Your task to perform on an android device: Add rayovac triple a to the cart on bestbuy, then select checkout. Image 0: 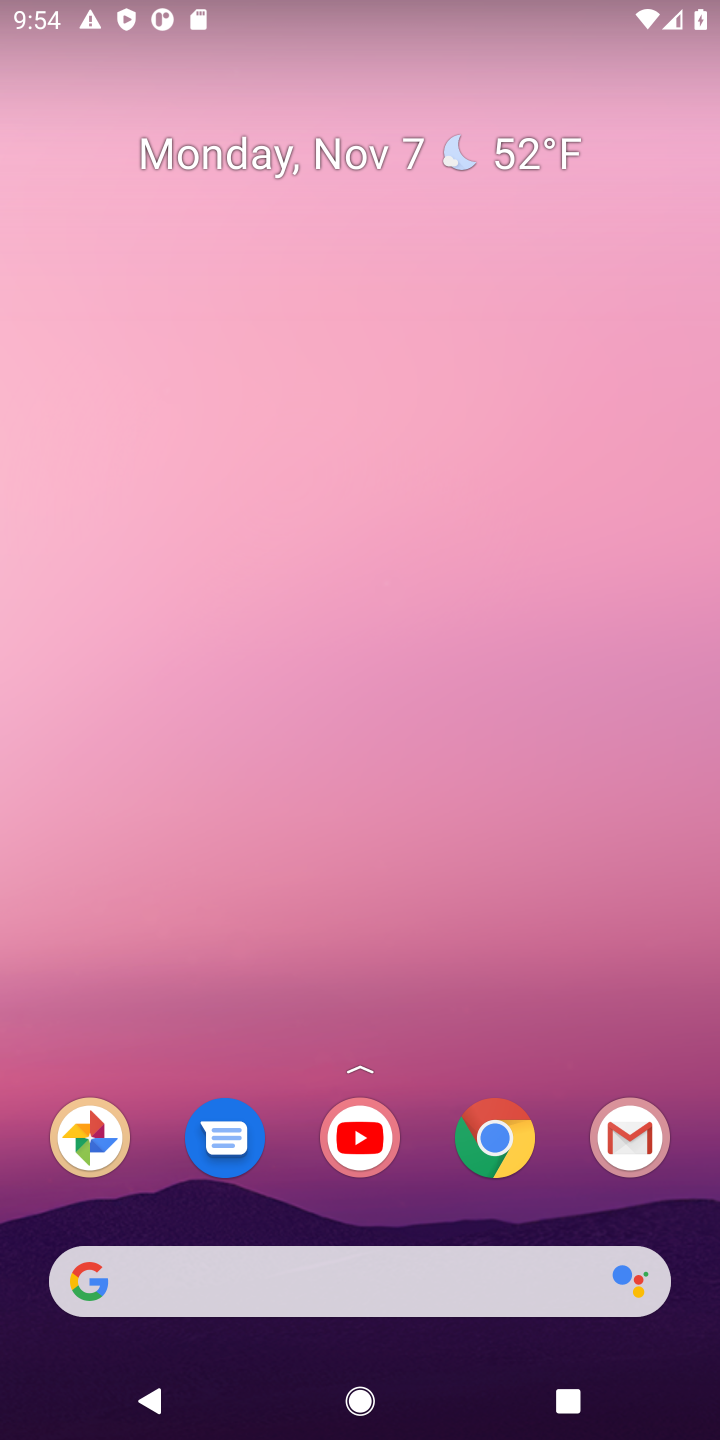
Step 0: drag from (447, 1201) to (459, 154)
Your task to perform on an android device: Add rayovac triple a to the cart on bestbuy, then select checkout. Image 1: 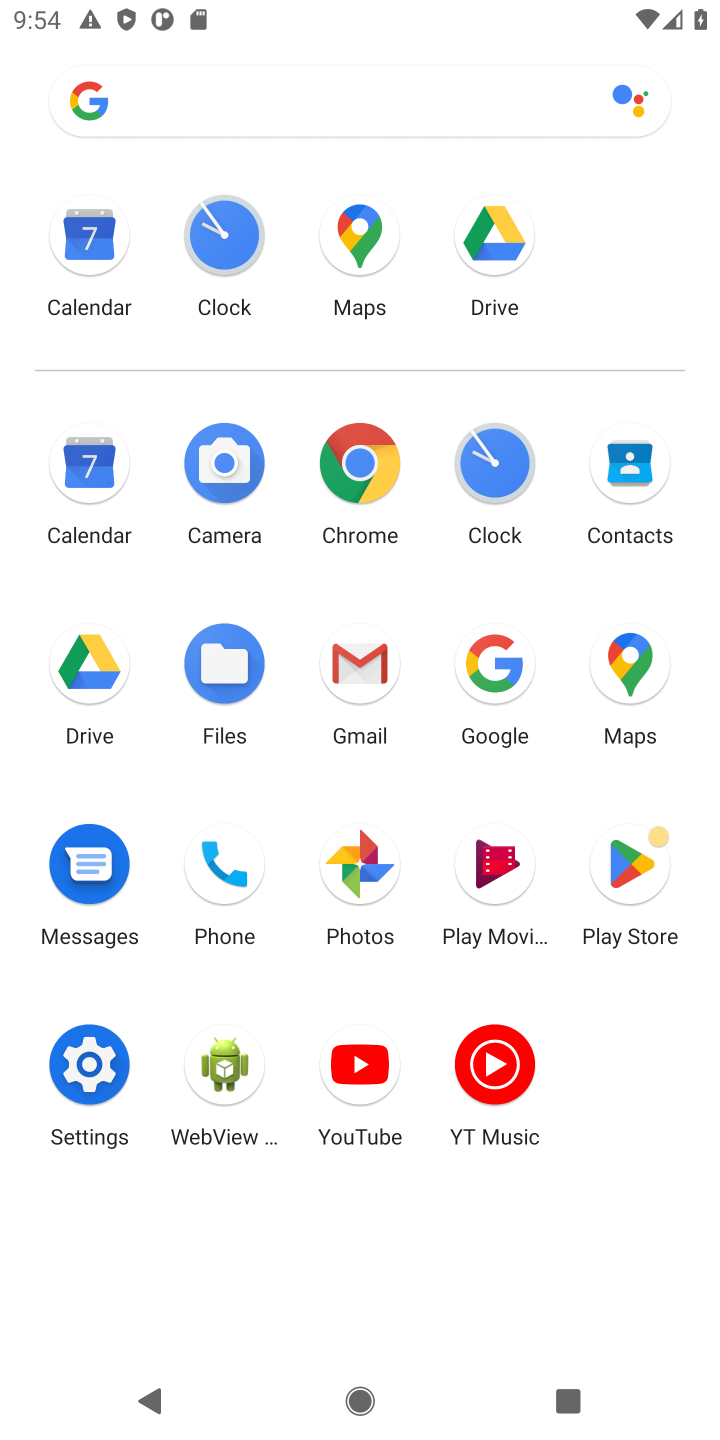
Step 1: click (363, 458)
Your task to perform on an android device: Add rayovac triple a to the cart on bestbuy, then select checkout. Image 2: 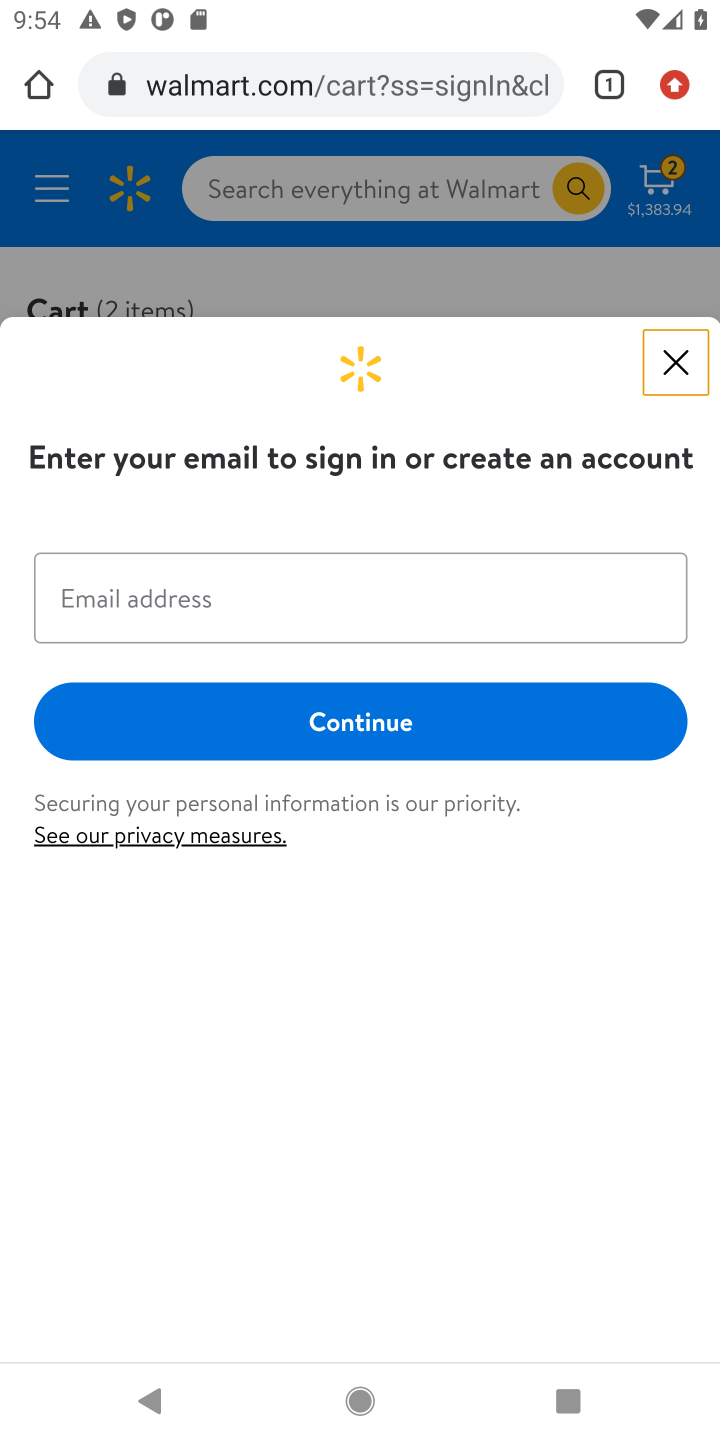
Step 2: click (447, 90)
Your task to perform on an android device: Add rayovac triple a to the cart on bestbuy, then select checkout. Image 3: 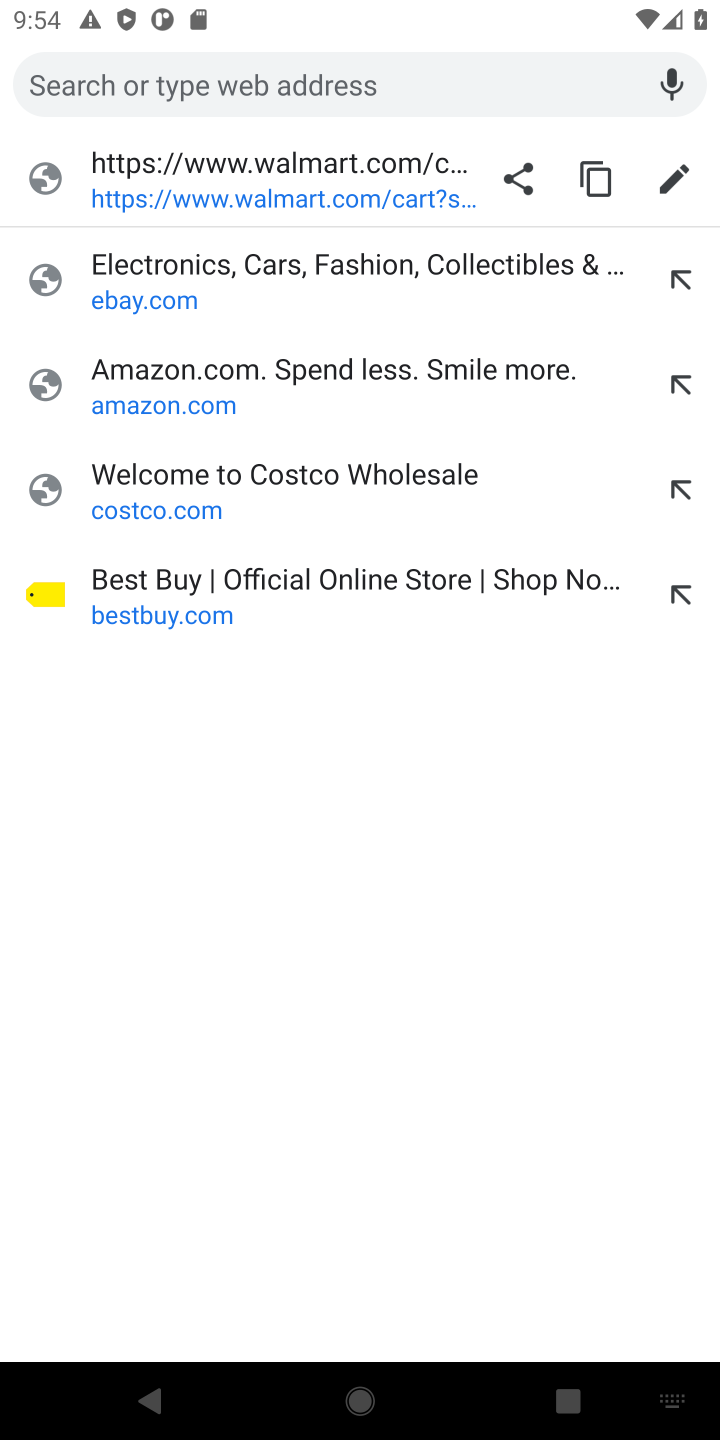
Step 3: type "bestbuy.com"
Your task to perform on an android device: Add rayovac triple a to the cart on bestbuy, then select checkout. Image 4: 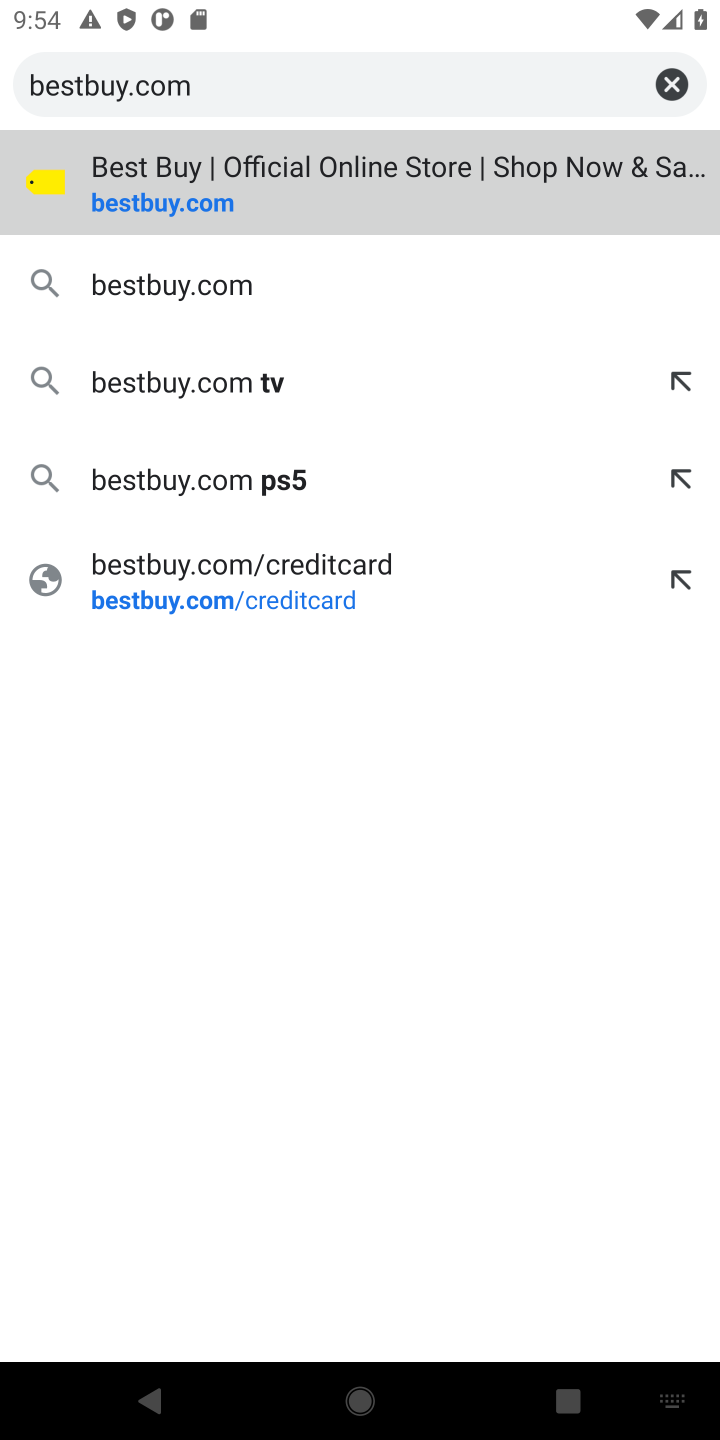
Step 4: press enter
Your task to perform on an android device: Add rayovac triple a to the cart on bestbuy, then select checkout. Image 5: 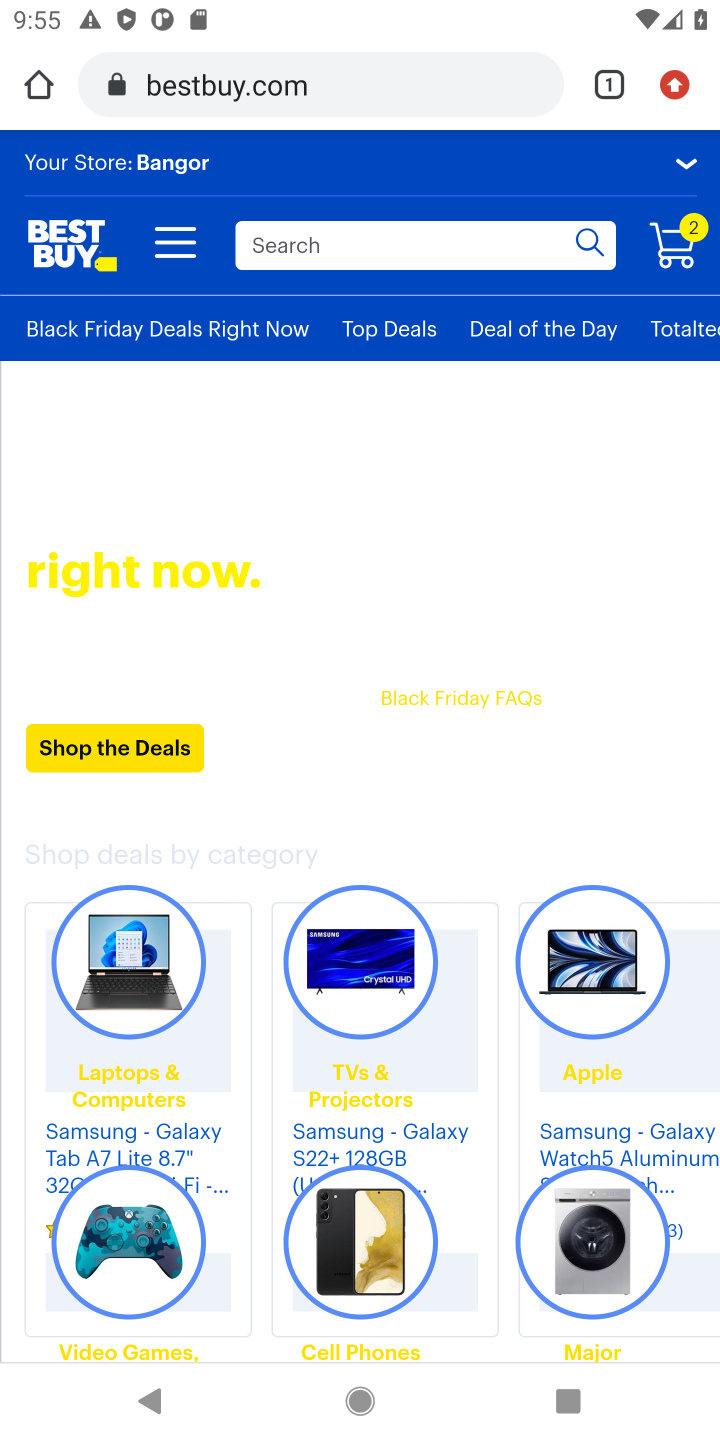
Step 5: click (488, 251)
Your task to perform on an android device: Add rayovac triple a to the cart on bestbuy, then select checkout. Image 6: 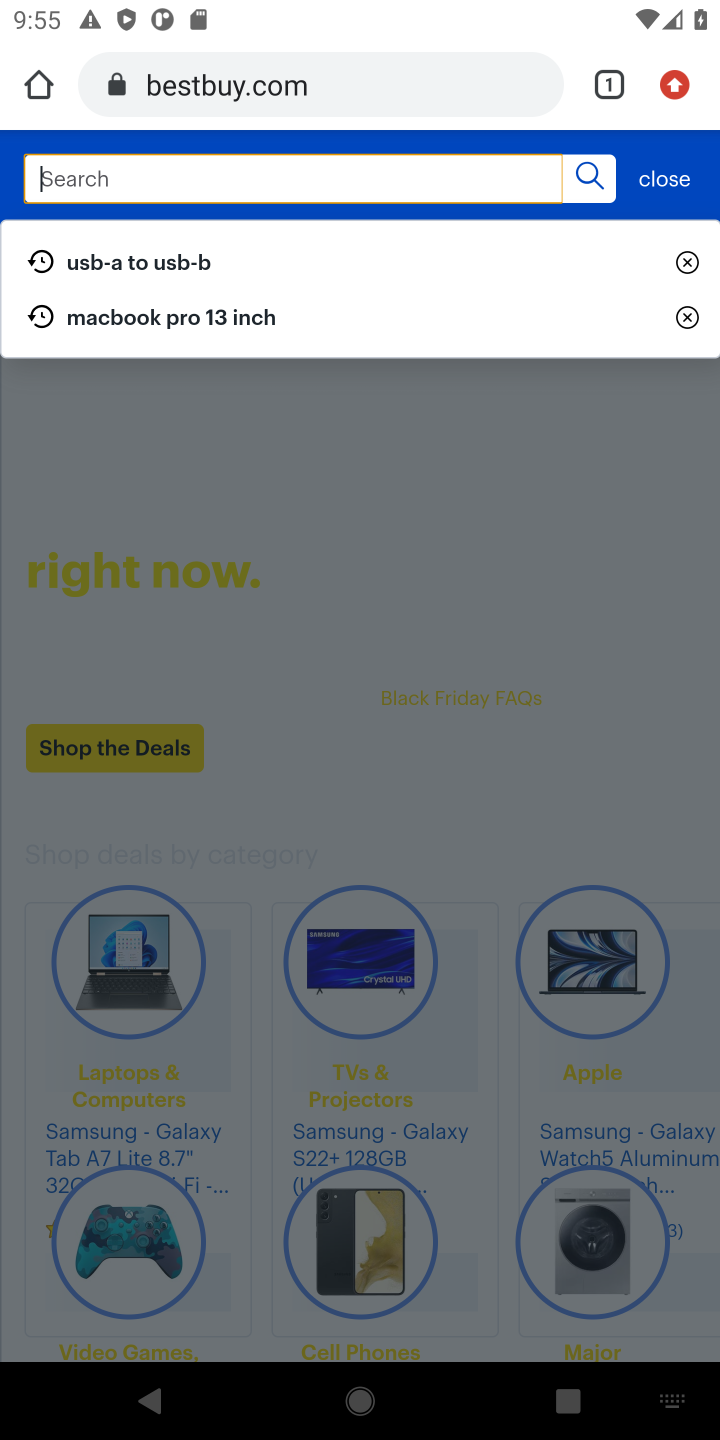
Step 6: type "rayovac triple a"
Your task to perform on an android device: Add rayovac triple a to the cart on bestbuy, then select checkout. Image 7: 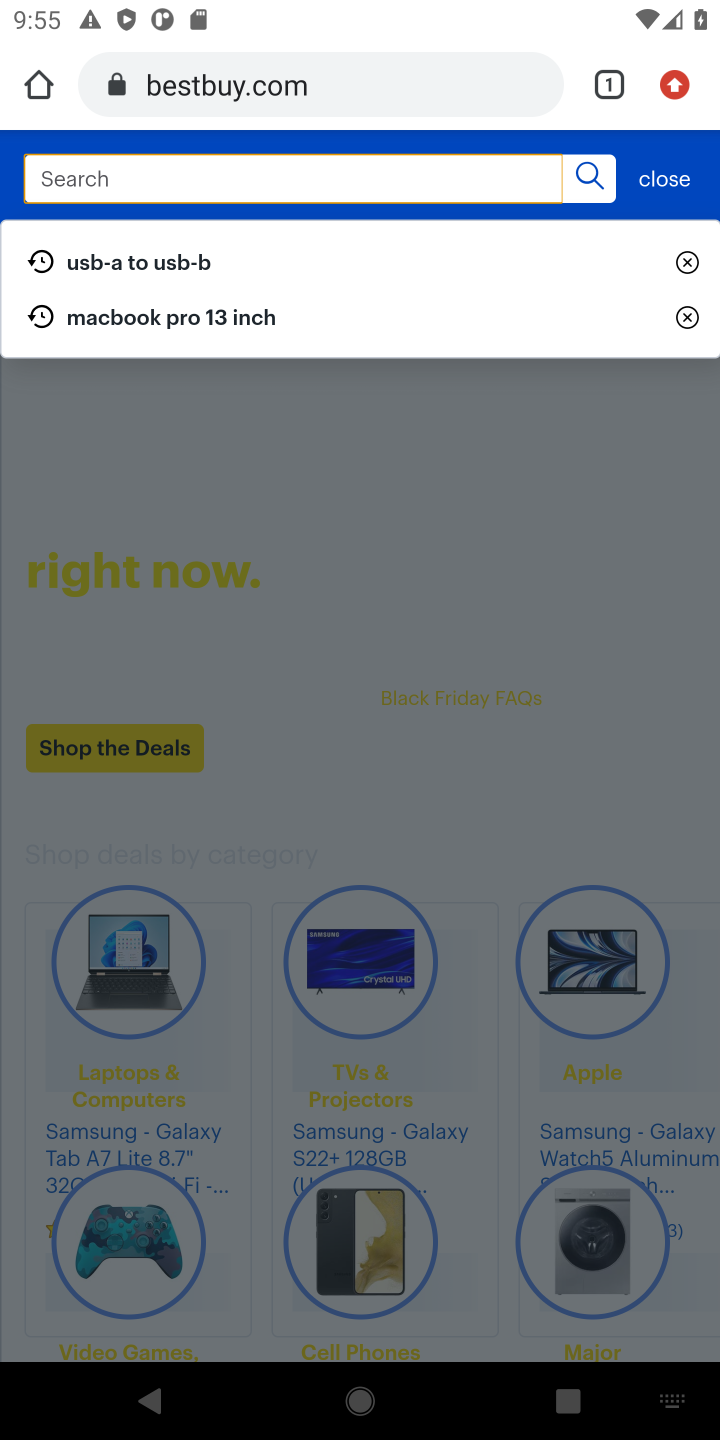
Step 7: press enter
Your task to perform on an android device: Add rayovac triple a to the cart on bestbuy, then select checkout. Image 8: 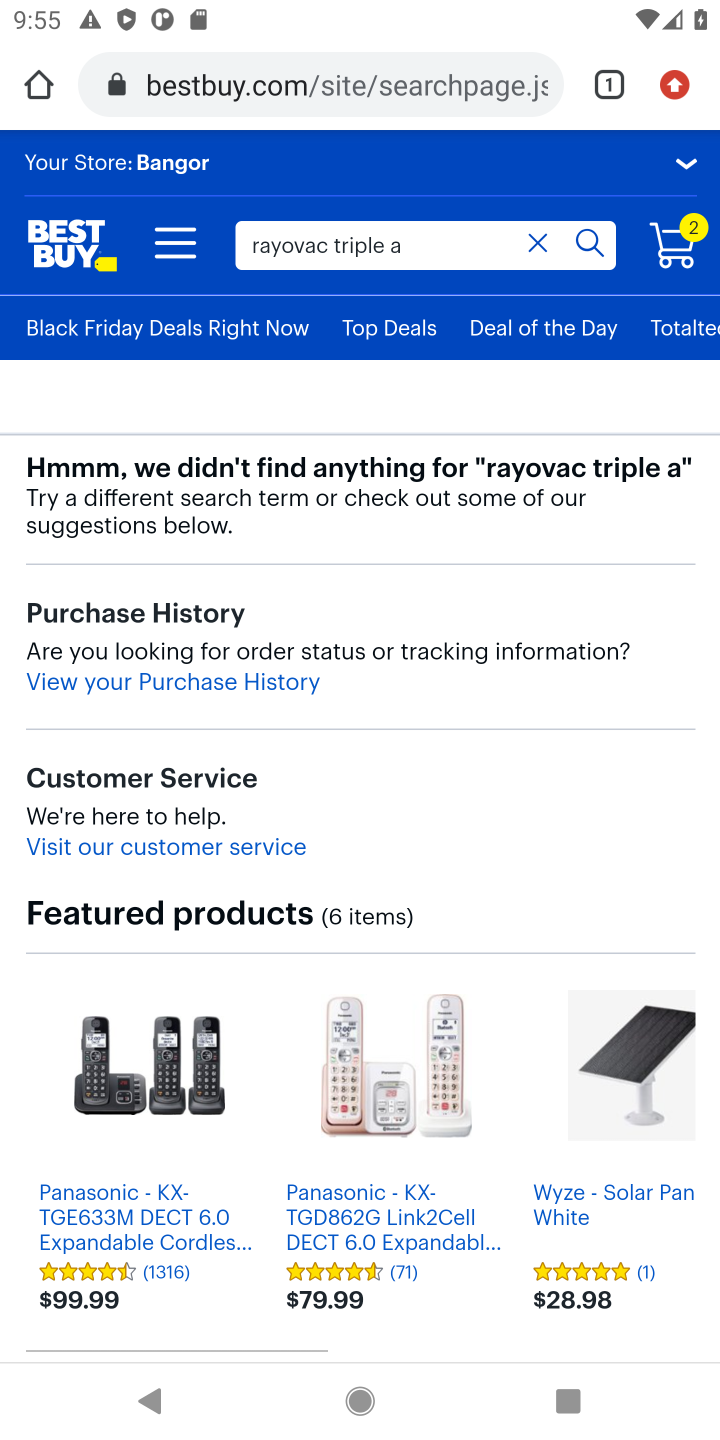
Step 8: task complete